Your task to perform on an android device: open device folders in google photos Image 0: 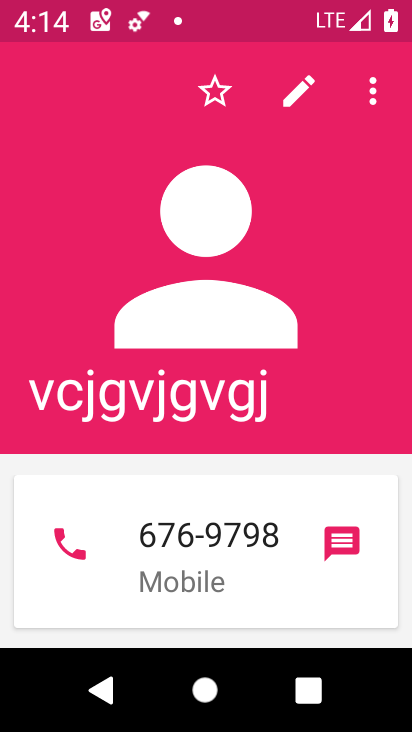
Step 0: press home button
Your task to perform on an android device: open device folders in google photos Image 1: 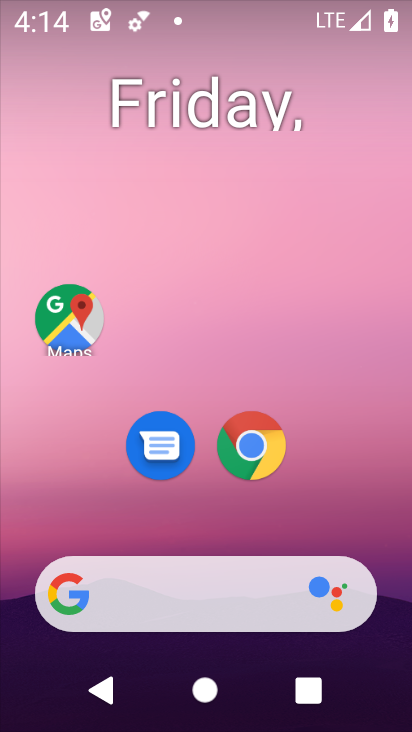
Step 1: drag from (381, 545) to (286, 186)
Your task to perform on an android device: open device folders in google photos Image 2: 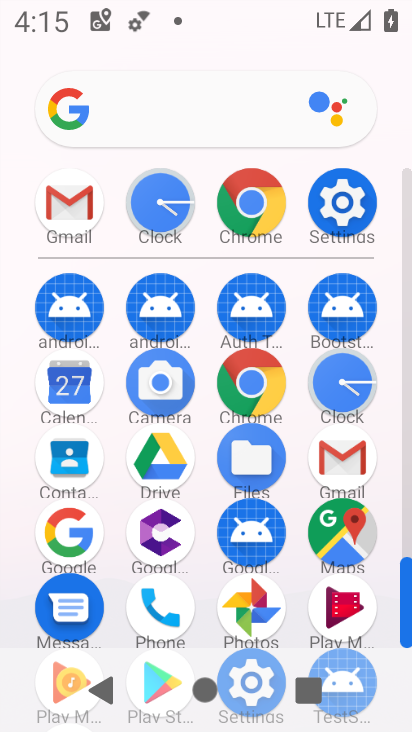
Step 2: click (253, 607)
Your task to perform on an android device: open device folders in google photos Image 3: 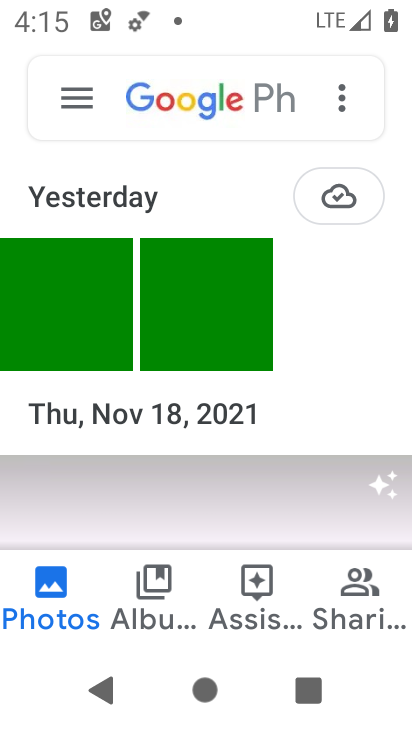
Step 3: click (83, 115)
Your task to perform on an android device: open device folders in google photos Image 4: 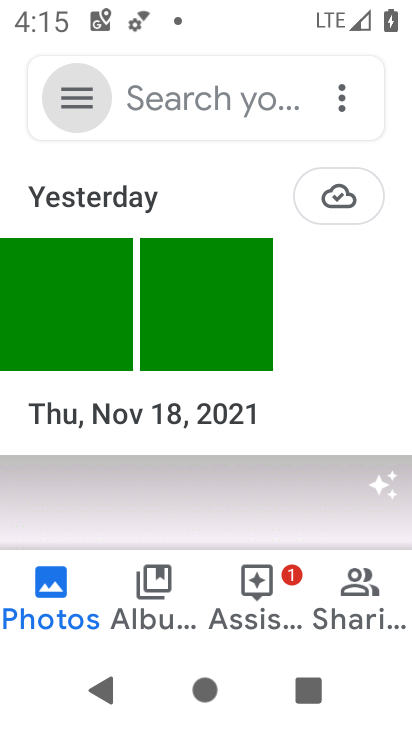
Step 4: click (79, 105)
Your task to perform on an android device: open device folders in google photos Image 5: 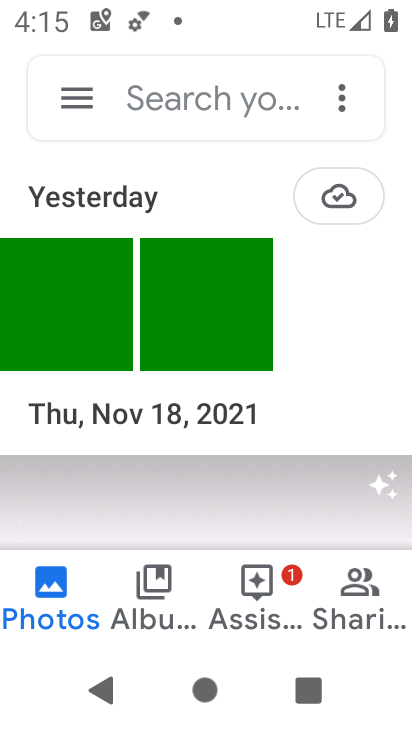
Step 5: click (79, 105)
Your task to perform on an android device: open device folders in google photos Image 6: 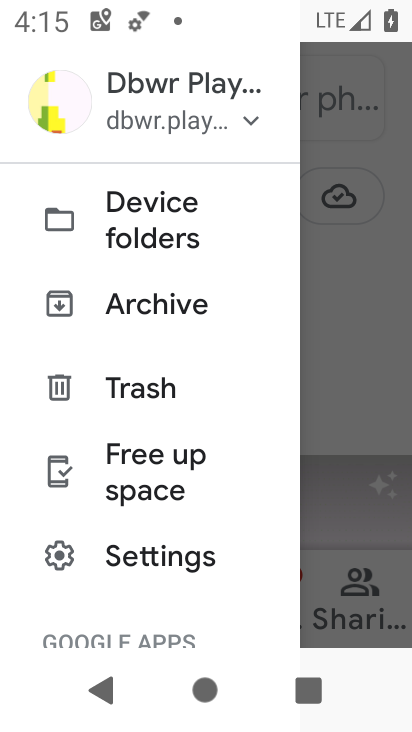
Step 6: click (135, 221)
Your task to perform on an android device: open device folders in google photos Image 7: 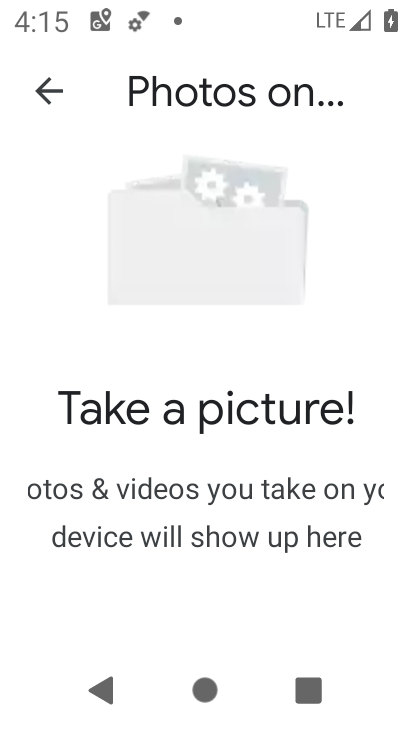
Step 7: task complete